Your task to perform on an android device: Open Chrome and go to settings Image 0: 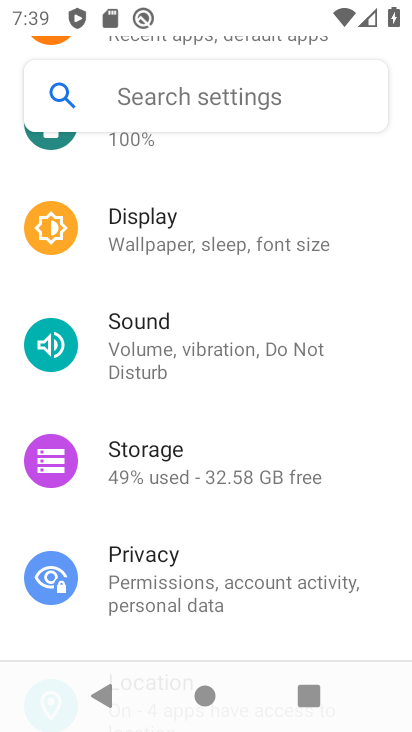
Step 0: drag from (266, 604) to (313, 362)
Your task to perform on an android device: Open Chrome and go to settings Image 1: 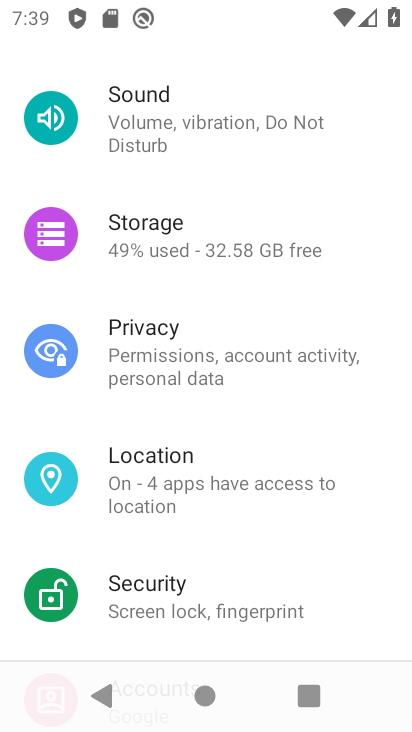
Step 1: press back button
Your task to perform on an android device: Open Chrome and go to settings Image 2: 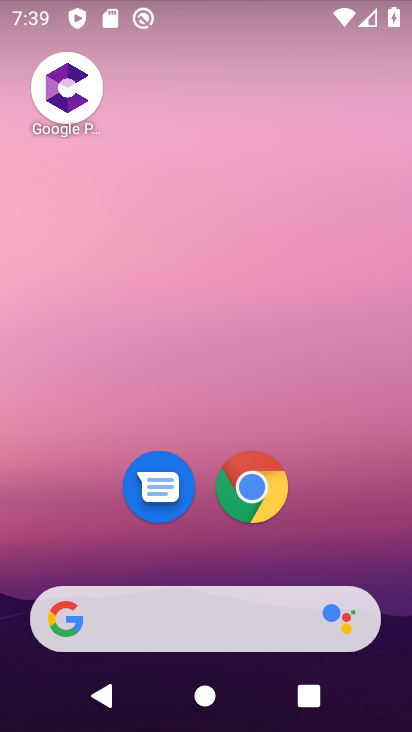
Step 2: click (272, 473)
Your task to perform on an android device: Open Chrome and go to settings Image 3: 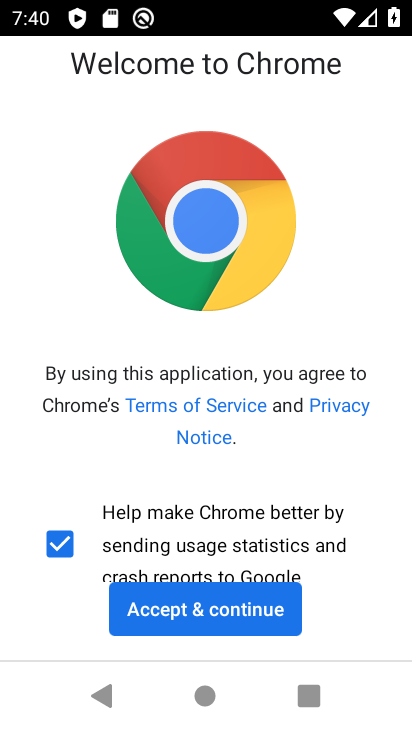
Step 3: click (231, 587)
Your task to perform on an android device: Open Chrome and go to settings Image 4: 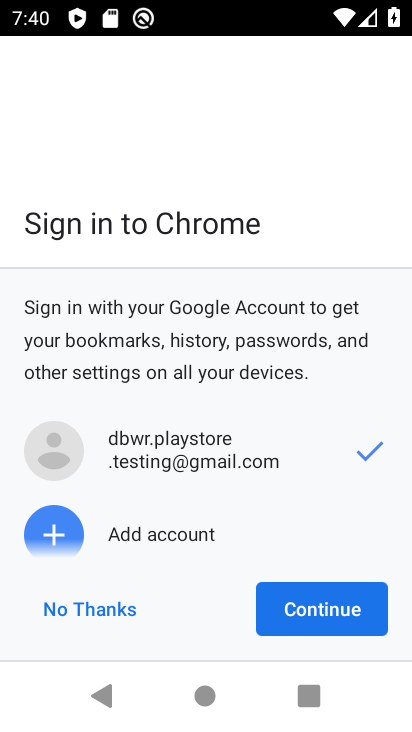
Step 4: click (229, 617)
Your task to perform on an android device: Open Chrome and go to settings Image 5: 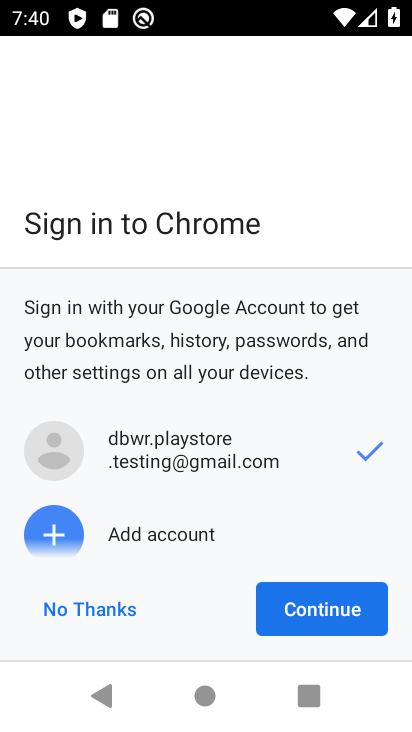
Step 5: click (332, 609)
Your task to perform on an android device: Open Chrome and go to settings Image 6: 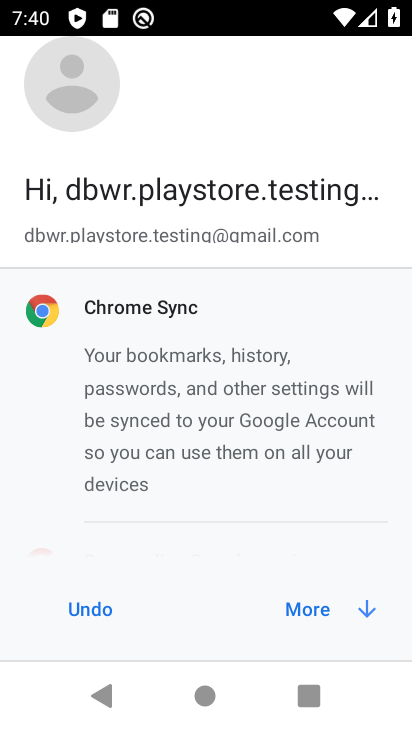
Step 6: click (321, 612)
Your task to perform on an android device: Open Chrome and go to settings Image 7: 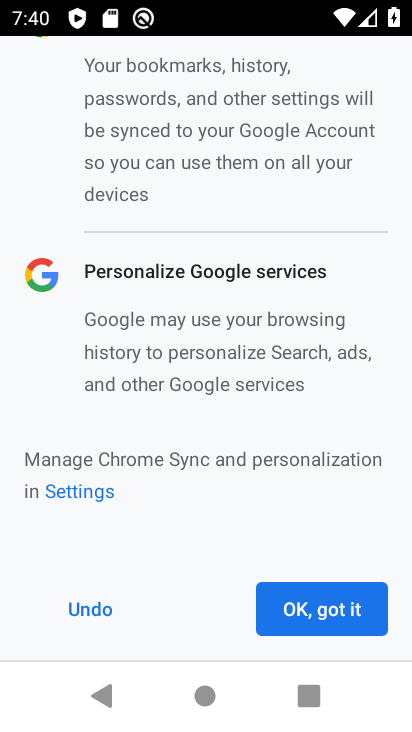
Step 7: click (321, 612)
Your task to perform on an android device: Open Chrome and go to settings Image 8: 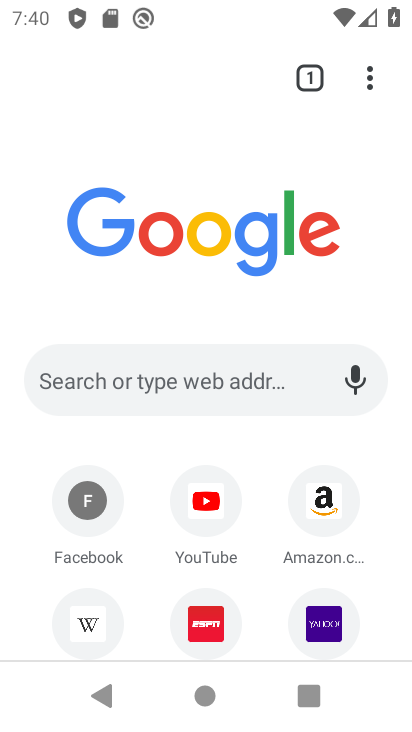
Step 8: click (373, 75)
Your task to perform on an android device: Open Chrome and go to settings Image 9: 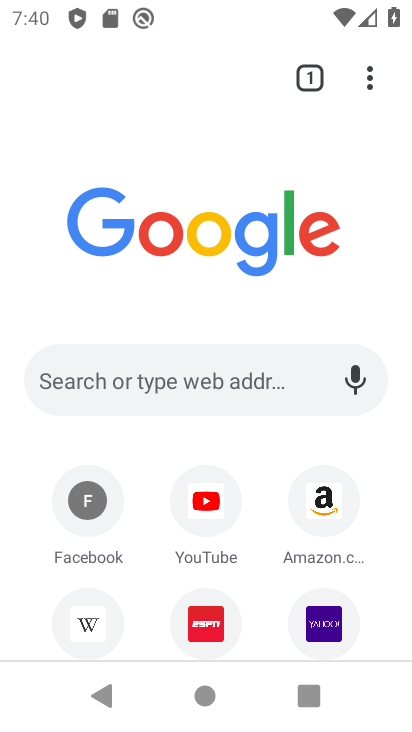
Step 9: click (364, 77)
Your task to perform on an android device: Open Chrome and go to settings Image 10: 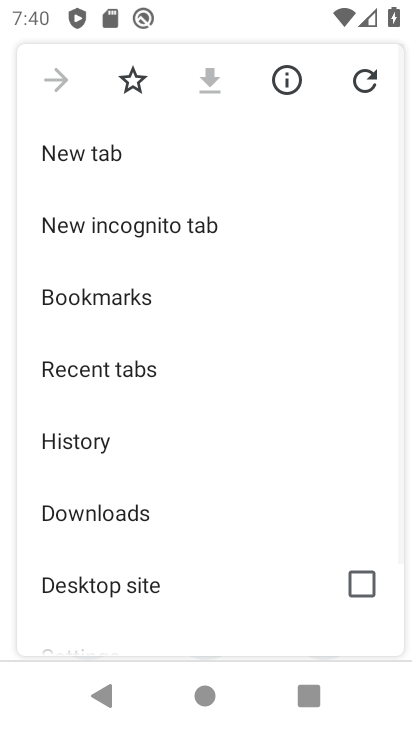
Step 10: drag from (232, 592) to (275, 331)
Your task to perform on an android device: Open Chrome and go to settings Image 11: 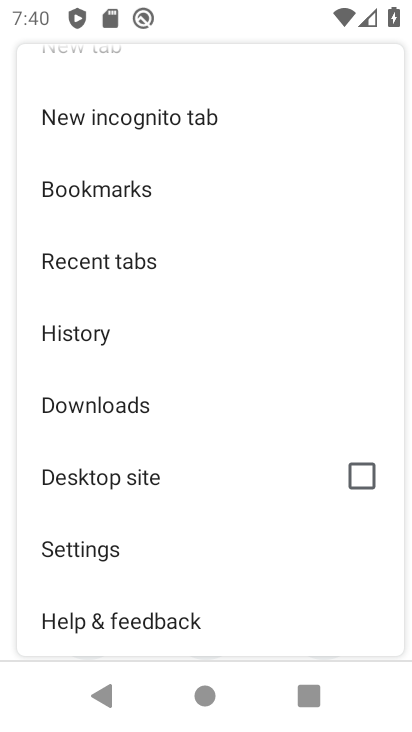
Step 11: click (94, 542)
Your task to perform on an android device: Open Chrome and go to settings Image 12: 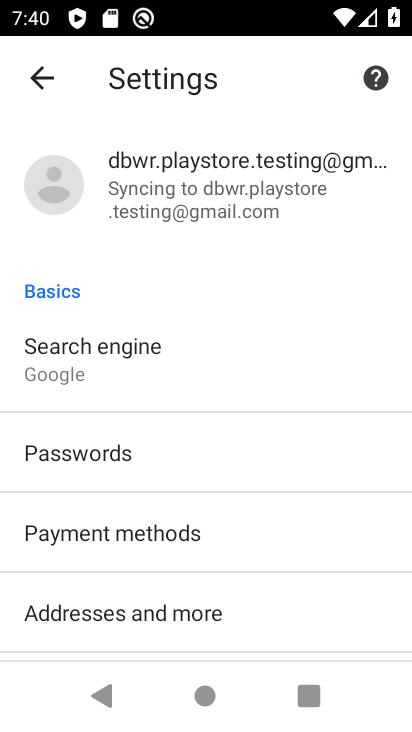
Step 12: task complete